Your task to perform on an android device: turn off notifications in google photos Image 0: 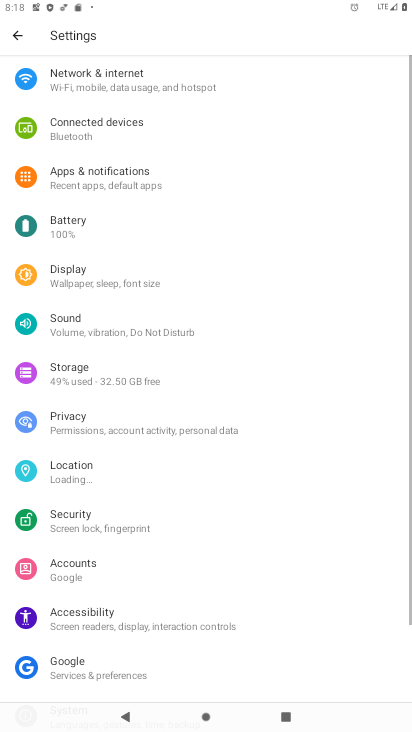
Step 0: press home button
Your task to perform on an android device: turn off notifications in google photos Image 1: 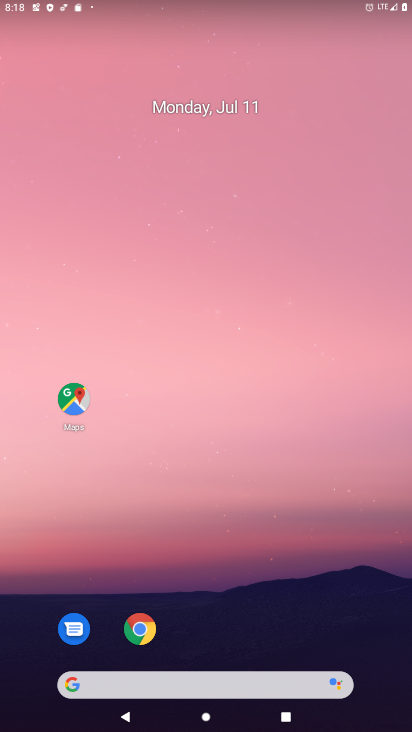
Step 1: drag from (224, 624) to (256, 91)
Your task to perform on an android device: turn off notifications in google photos Image 2: 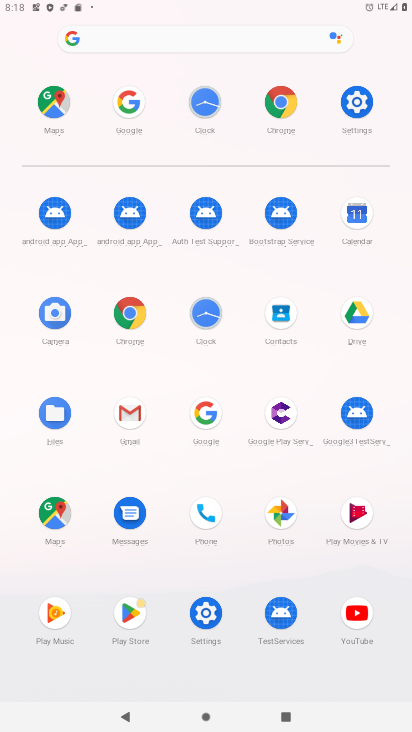
Step 2: click (284, 511)
Your task to perform on an android device: turn off notifications in google photos Image 3: 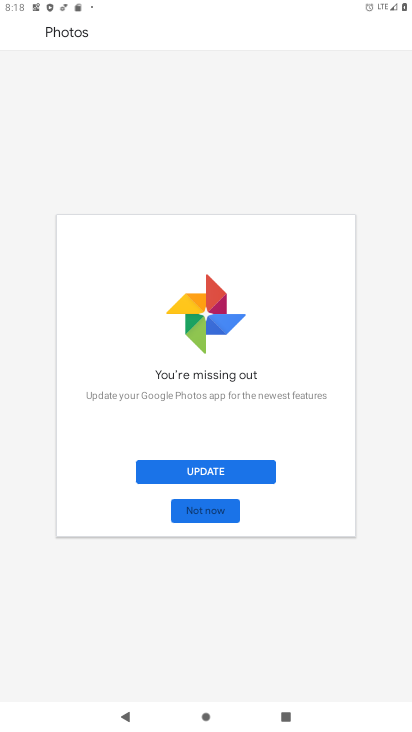
Step 3: click (220, 470)
Your task to perform on an android device: turn off notifications in google photos Image 4: 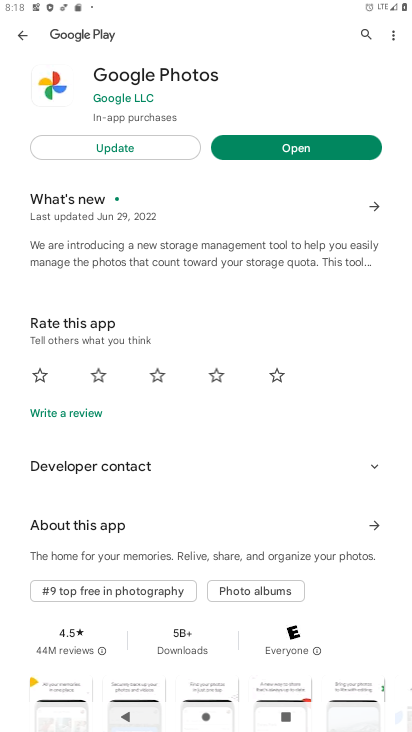
Step 4: click (125, 150)
Your task to perform on an android device: turn off notifications in google photos Image 5: 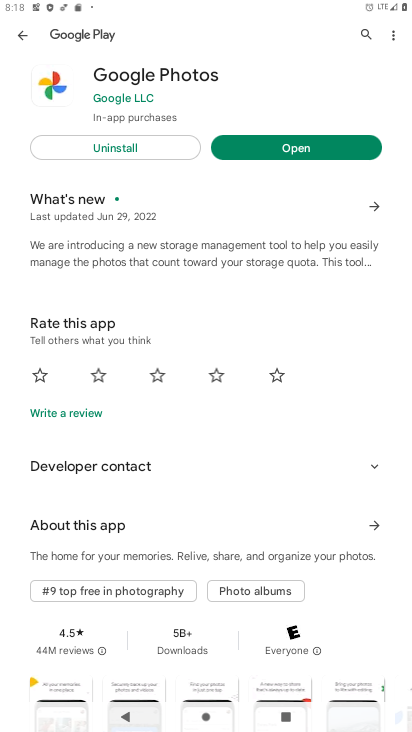
Step 5: click (282, 145)
Your task to perform on an android device: turn off notifications in google photos Image 6: 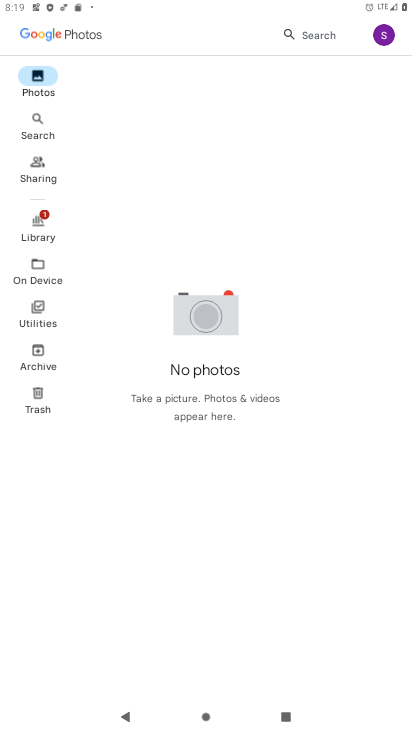
Step 6: click (383, 38)
Your task to perform on an android device: turn off notifications in google photos Image 7: 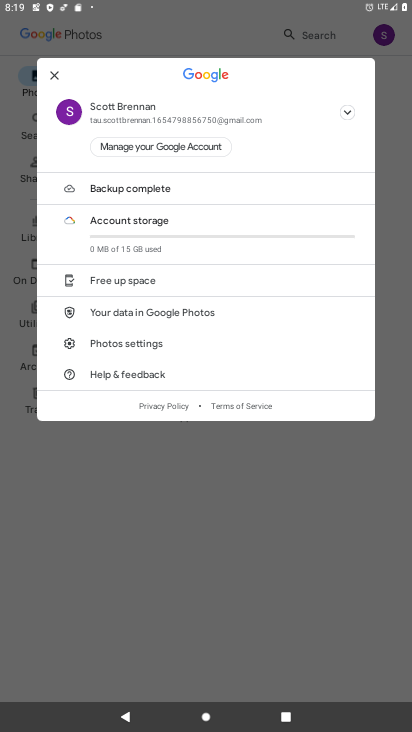
Step 7: click (160, 340)
Your task to perform on an android device: turn off notifications in google photos Image 8: 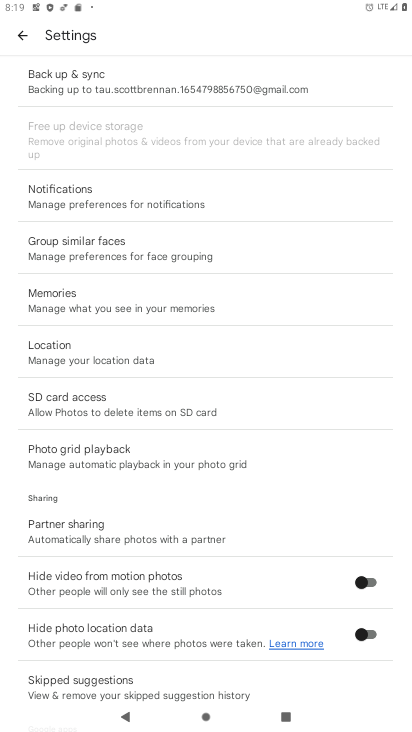
Step 8: click (77, 204)
Your task to perform on an android device: turn off notifications in google photos Image 9: 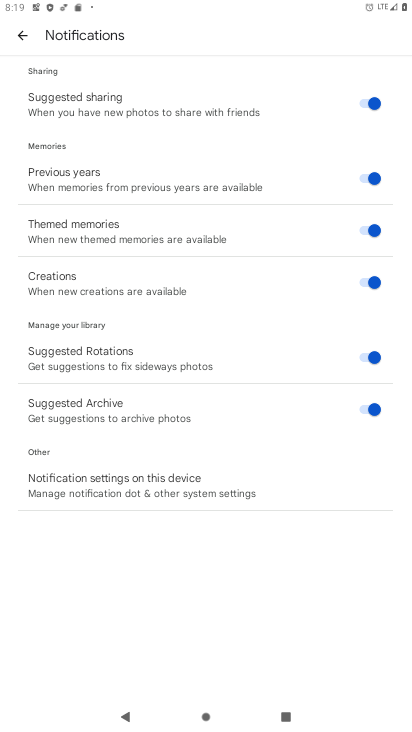
Step 9: click (112, 481)
Your task to perform on an android device: turn off notifications in google photos Image 10: 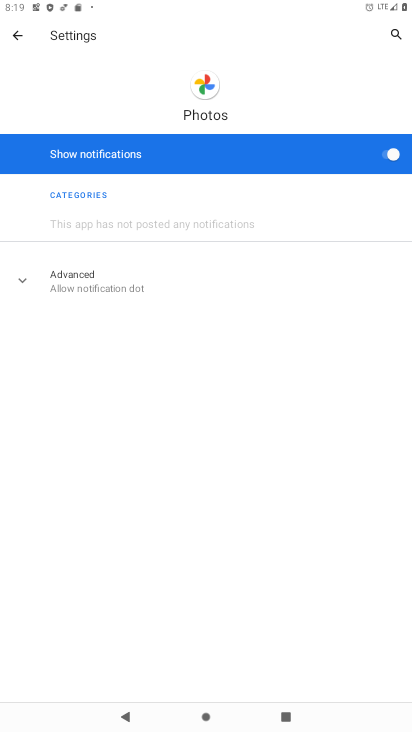
Step 10: click (387, 160)
Your task to perform on an android device: turn off notifications in google photos Image 11: 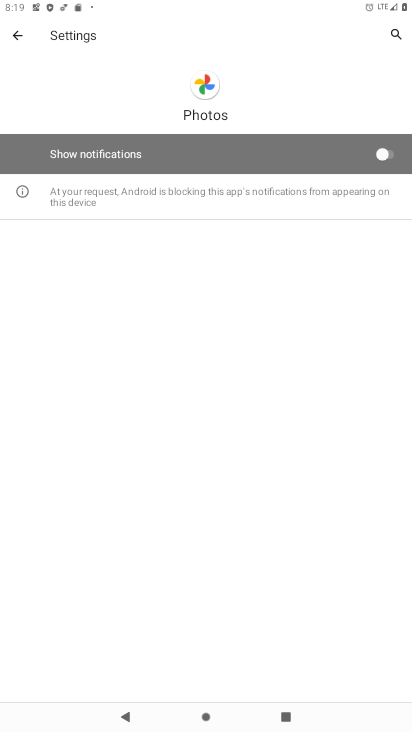
Step 11: task complete